Your task to perform on an android device: move an email to a new category in the gmail app Image 0: 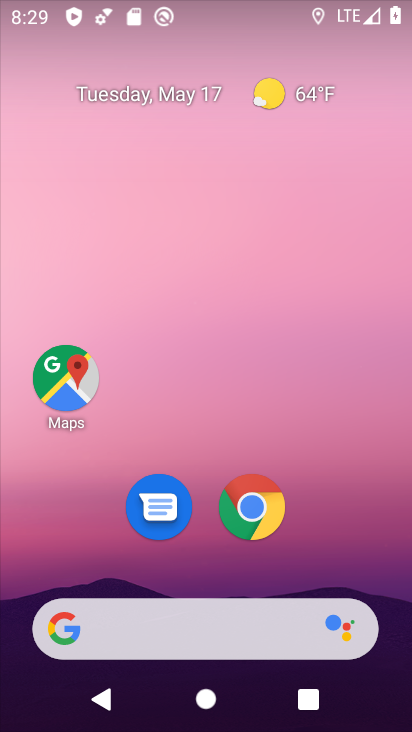
Step 0: drag from (313, 548) to (186, 62)
Your task to perform on an android device: move an email to a new category in the gmail app Image 1: 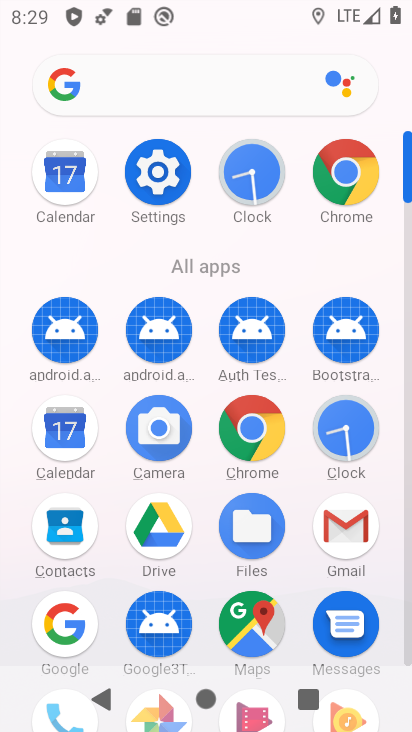
Step 1: click (348, 527)
Your task to perform on an android device: move an email to a new category in the gmail app Image 2: 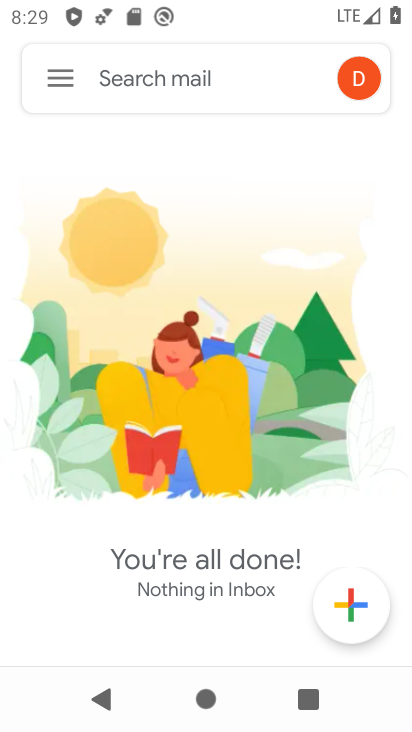
Step 2: click (63, 82)
Your task to perform on an android device: move an email to a new category in the gmail app Image 3: 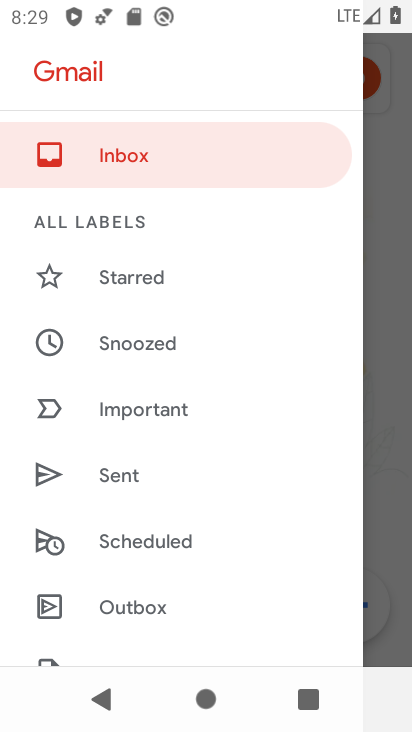
Step 3: drag from (146, 389) to (187, 313)
Your task to perform on an android device: move an email to a new category in the gmail app Image 4: 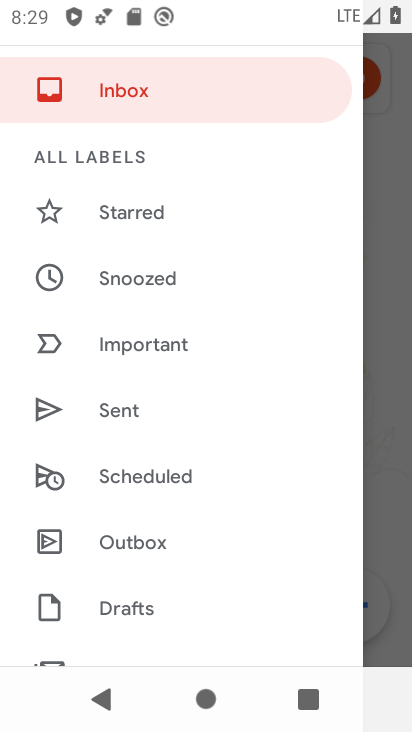
Step 4: drag from (121, 488) to (180, 392)
Your task to perform on an android device: move an email to a new category in the gmail app Image 5: 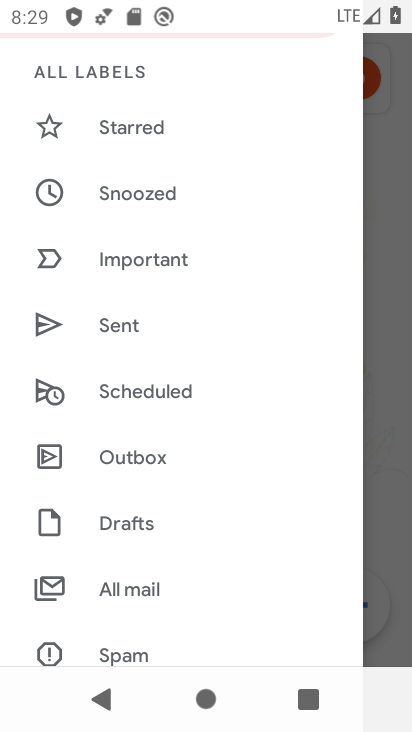
Step 5: drag from (143, 481) to (146, 401)
Your task to perform on an android device: move an email to a new category in the gmail app Image 6: 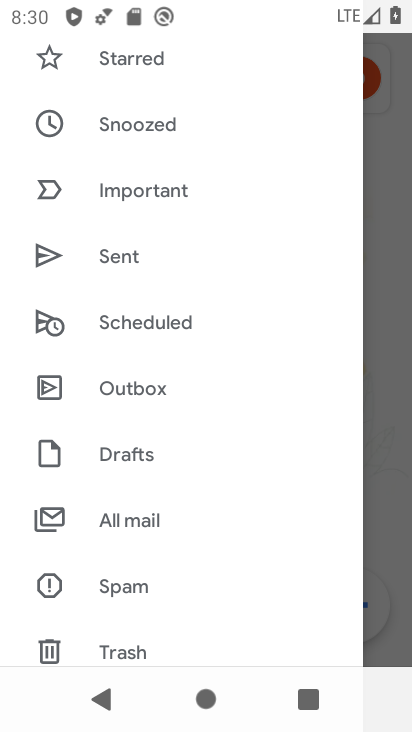
Step 6: click (129, 522)
Your task to perform on an android device: move an email to a new category in the gmail app Image 7: 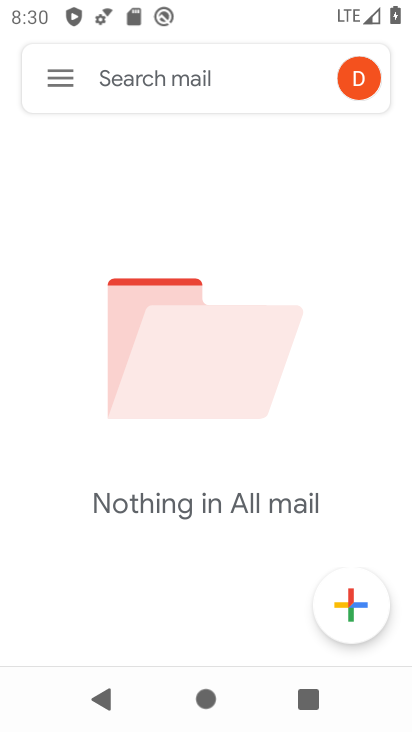
Step 7: task complete